Your task to perform on an android device: Open Chrome and go to the settings page Image 0: 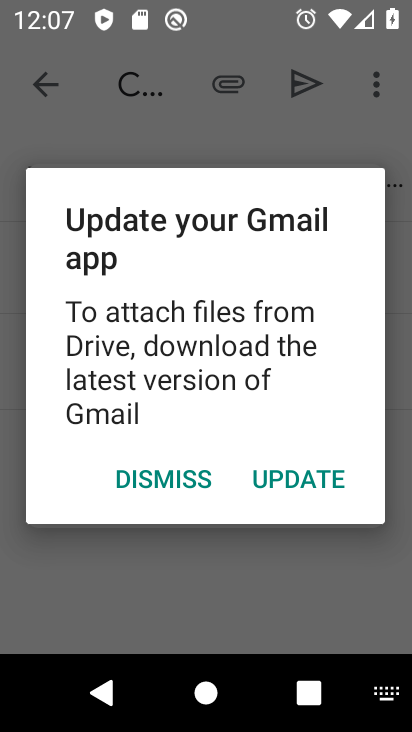
Step 0: press home button
Your task to perform on an android device: Open Chrome and go to the settings page Image 1: 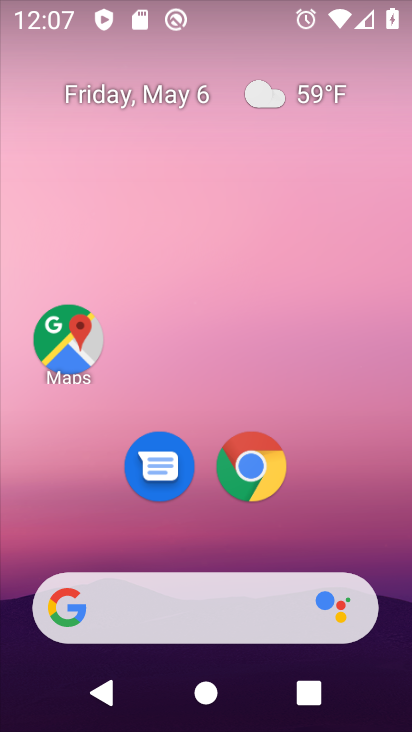
Step 1: click (256, 467)
Your task to perform on an android device: Open Chrome and go to the settings page Image 2: 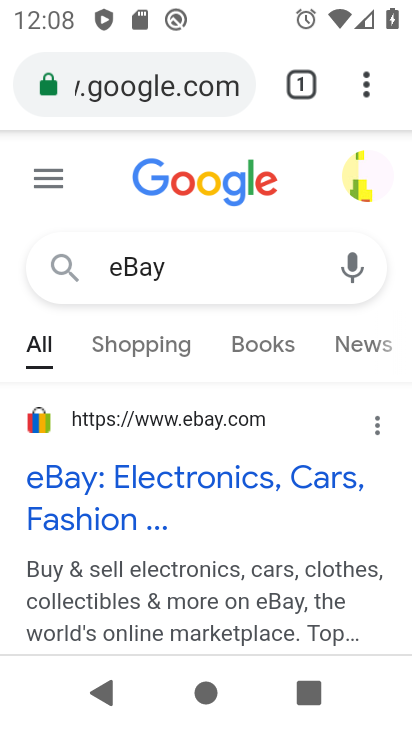
Step 2: click (365, 91)
Your task to perform on an android device: Open Chrome and go to the settings page Image 3: 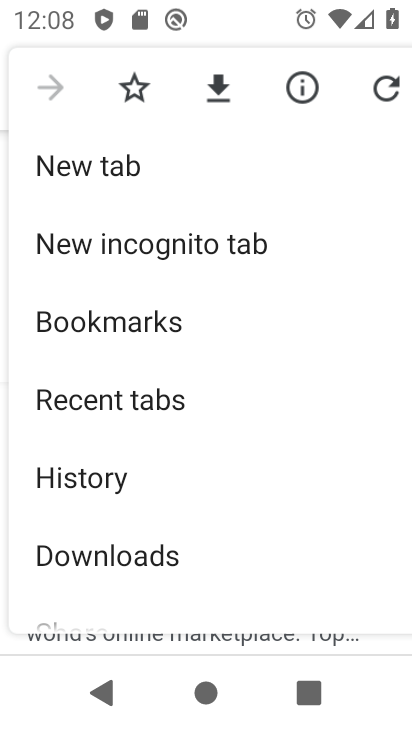
Step 3: drag from (226, 480) to (220, 184)
Your task to perform on an android device: Open Chrome and go to the settings page Image 4: 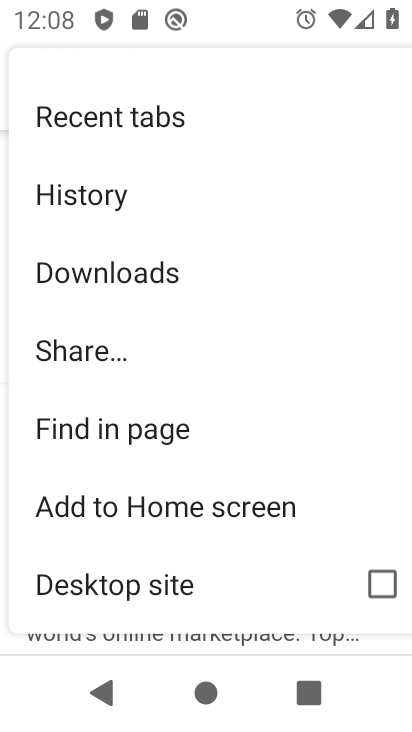
Step 4: drag from (148, 542) to (164, 285)
Your task to perform on an android device: Open Chrome and go to the settings page Image 5: 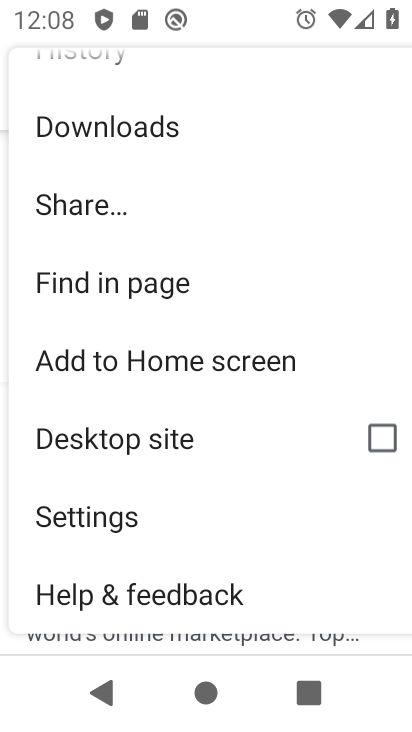
Step 5: click (105, 513)
Your task to perform on an android device: Open Chrome and go to the settings page Image 6: 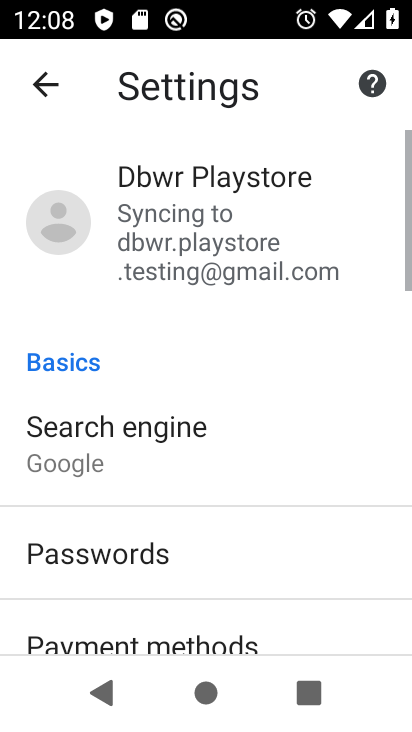
Step 6: task complete